Your task to perform on an android device: turn notification dots on Image 0: 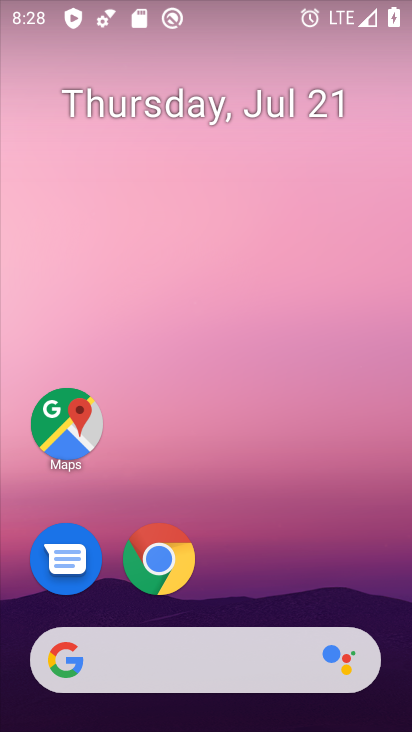
Step 0: drag from (325, 557) to (331, 193)
Your task to perform on an android device: turn notification dots on Image 1: 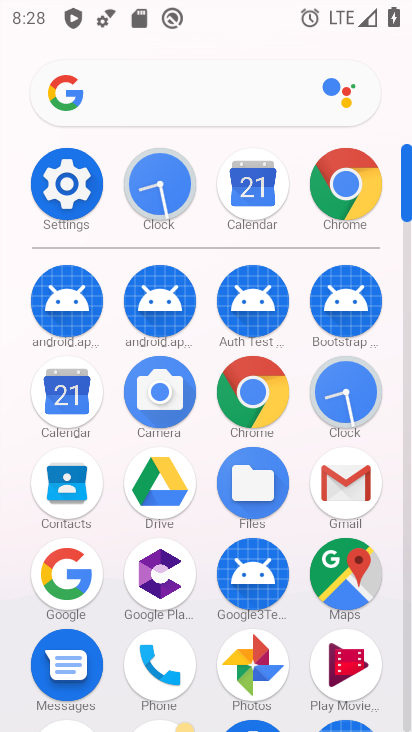
Step 1: click (82, 198)
Your task to perform on an android device: turn notification dots on Image 2: 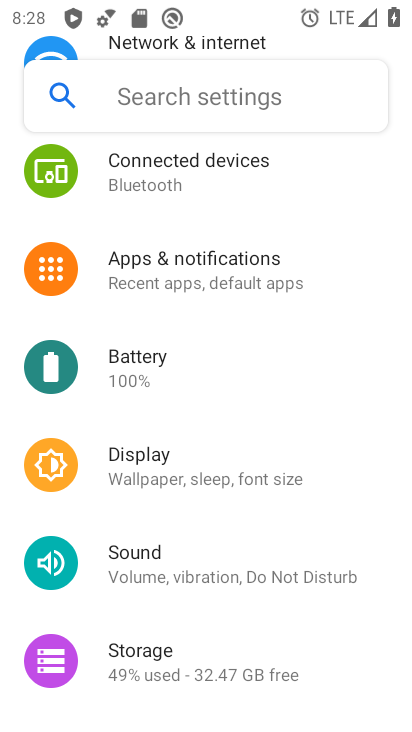
Step 2: drag from (355, 232) to (343, 313)
Your task to perform on an android device: turn notification dots on Image 3: 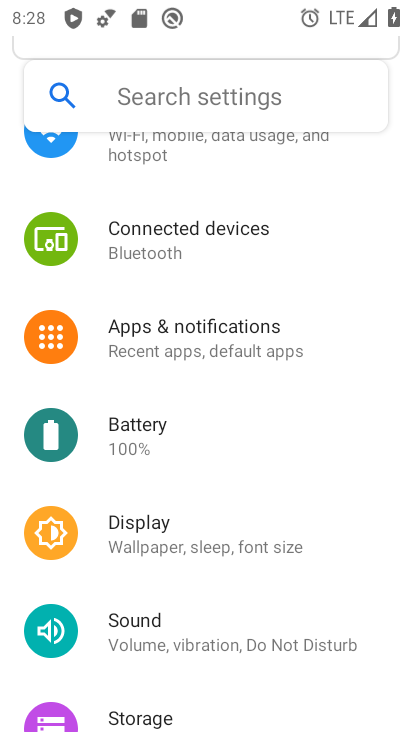
Step 3: drag from (350, 203) to (334, 299)
Your task to perform on an android device: turn notification dots on Image 4: 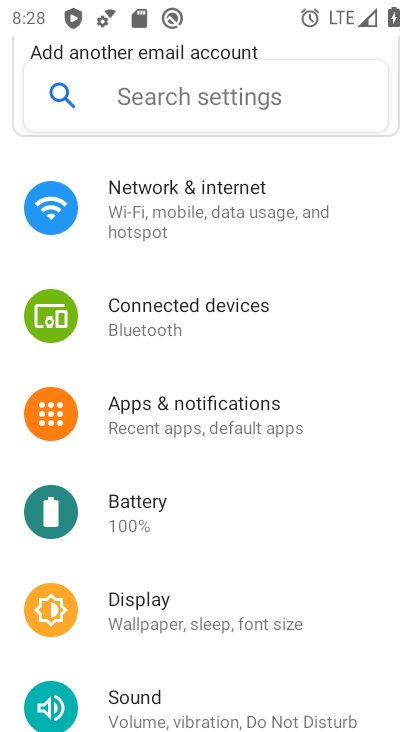
Step 4: drag from (365, 196) to (365, 319)
Your task to perform on an android device: turn notification dots on Image 5: 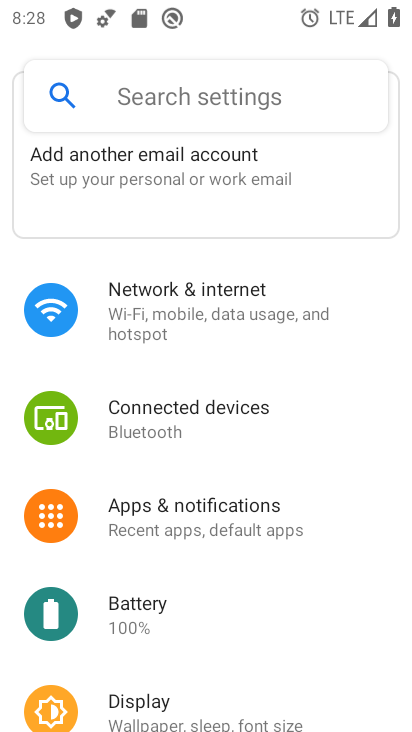
Step 5: drag from (362, 280) to (375, 420)
Your task to perform on an android device: turn notification dots on Image 6: 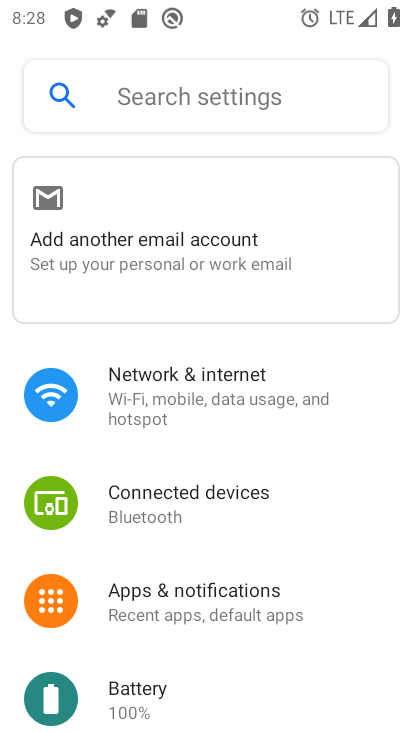
Step 6: click (223, 607)
Your task to perform on an android device: turn notification dots on Image 7: 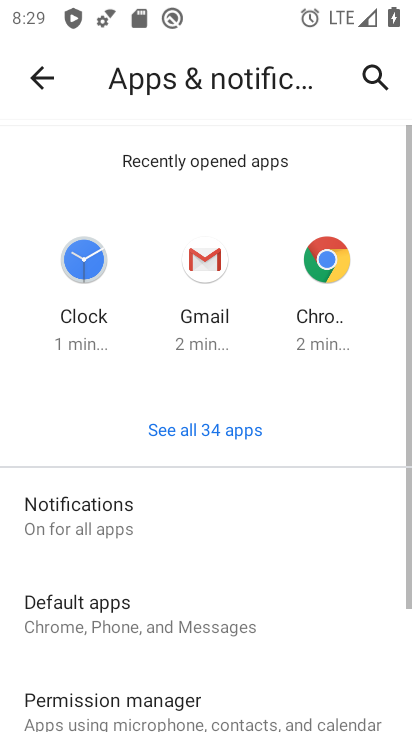
Step 7: drag from (306, 595) to (306, 515)
Your task to perform on an android device: turn notification dots on Image 8: 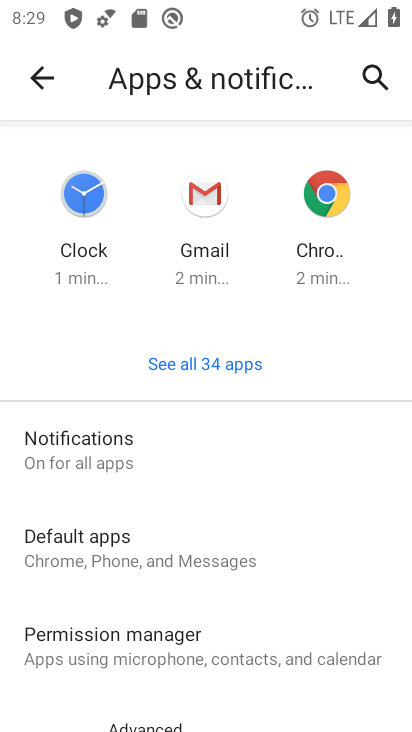
Step 8: drag from (305, 596) to (315, 510)
Your task to perform on an android device: turn notification dots on Image 9: 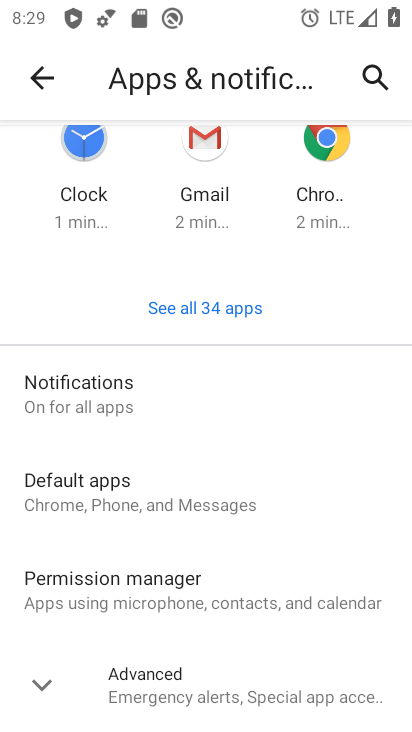
Step 9: click (150, 399)
Your task to perform on an android device: turn notification dots on Image 10: 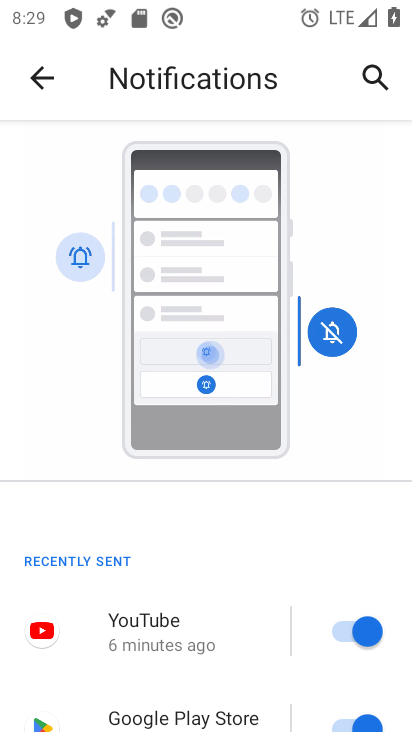
Step 10: drag from (232, 578) to (252, 505)
Your task to perform on an android device: turn notification dots on Image 11: 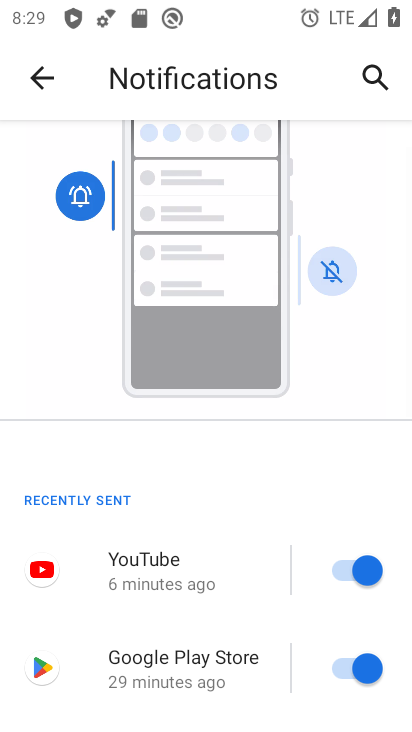
Step 11: drag from (266, 603) to (265, 476)
Your task to perform on an android device: turn notification dots on Image 12: 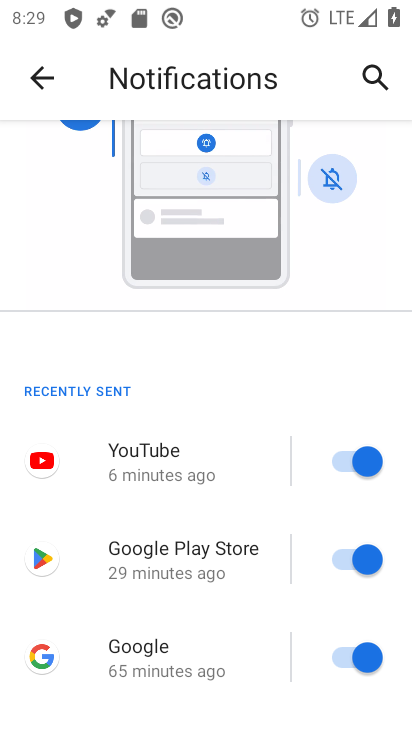
Step 12: drag from (250, 598) to (252, 505)
Your task to perform on an android device: turn notification dots on Image 13: 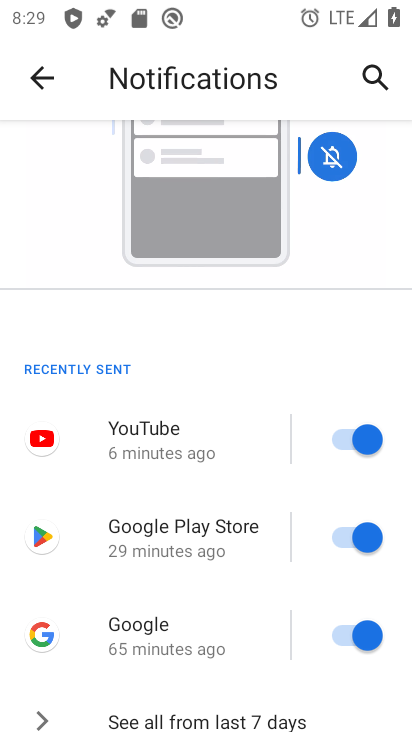
Step 13: drag from (242, 624) to (261, 514)
Your task to perform on an android device: turn notification dots on Image 14: 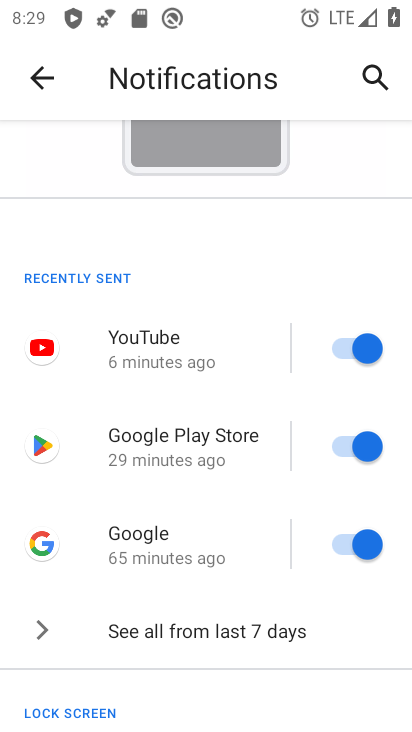
Step 14: drag from (245, 656) to (269, 535)
Your task to perform on an android device: turn notification dots on Image 15: 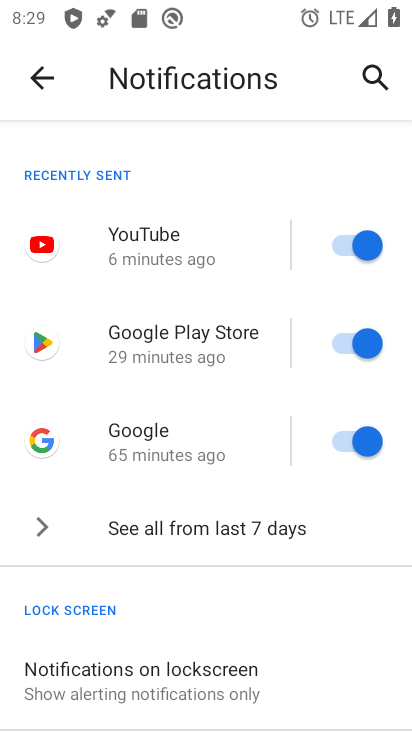
Step 15: drag from (278, 622) to (277, 410)
Your task to perform on an android device: turn notification dots on Image 16: 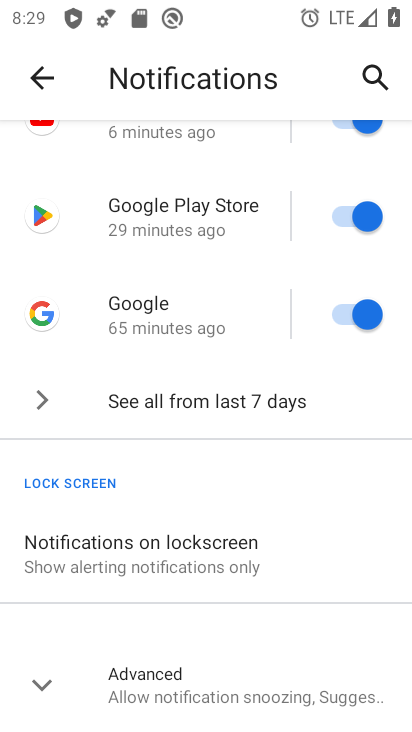
Step 16: click (283, 659)
Your task to perform on an android device: turn notification dots on Image 17: 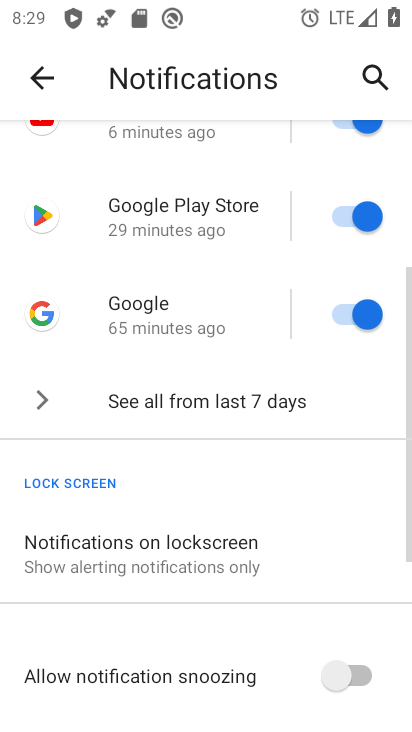
Step 17: task complete